Your task to perform on an android device: turn vacation reply on in the gmail app Image 0: 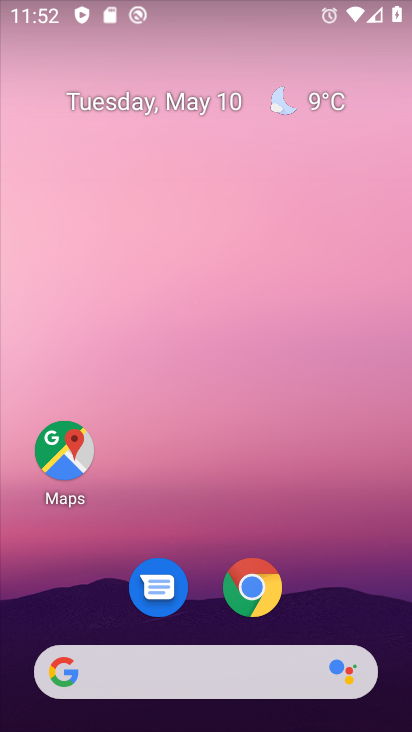
Step 0: drag from (356, 632) to (330, 14)
Your task to perform on an android device: turn vacation reply on in the gmail app Image 1: 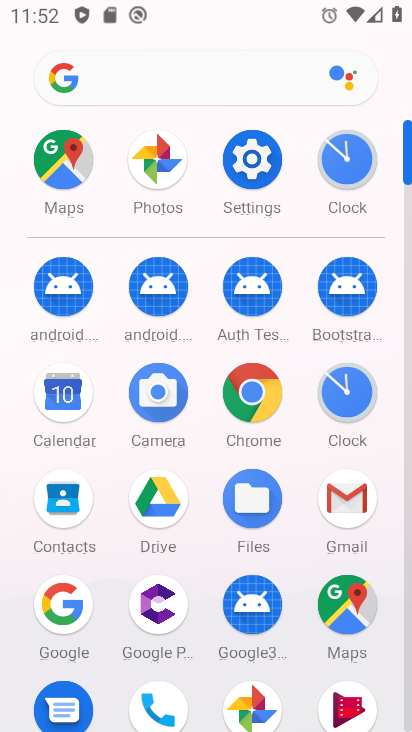
Step 1: click (346, 499)
Your task to perform on an android device: turn vacation reply on in the gmail app Image 2: 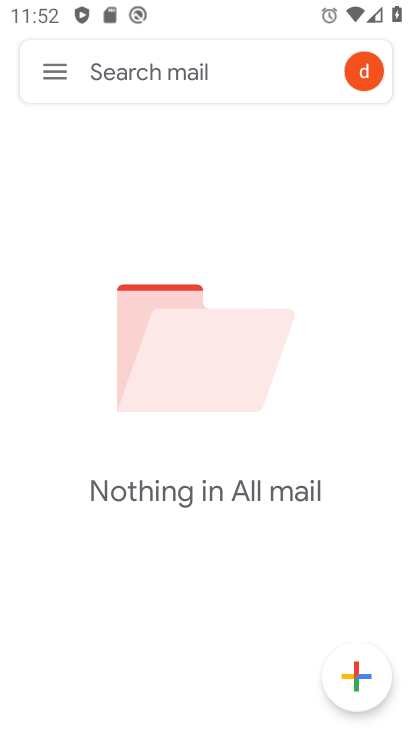
Step 2: click (52, 77)
Your task to perform on an android device: turn vacation reply on in the gmail app Image 3: 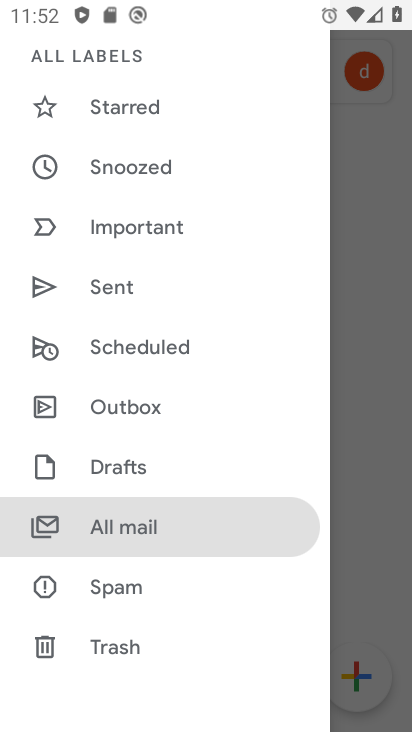
Step 3: drag from (173, 540) to (162, 177)
Your task to perform on an android device: turn vacation reply on in the gmail app Image 4: 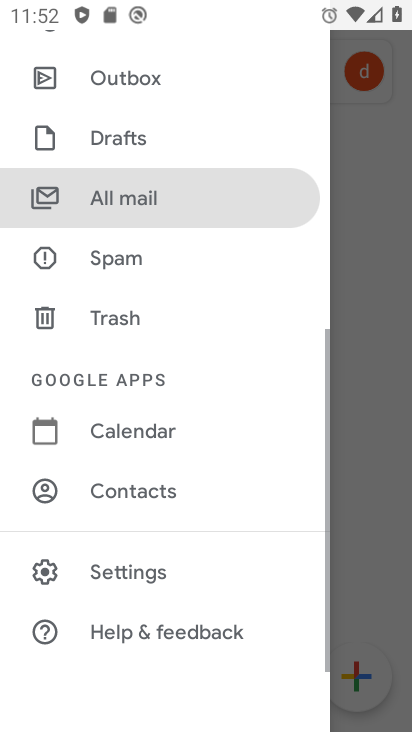
Step 4: click (138, 576)
Your task to perform on an android device: turn vacation reply on in the gmail app Image 5: 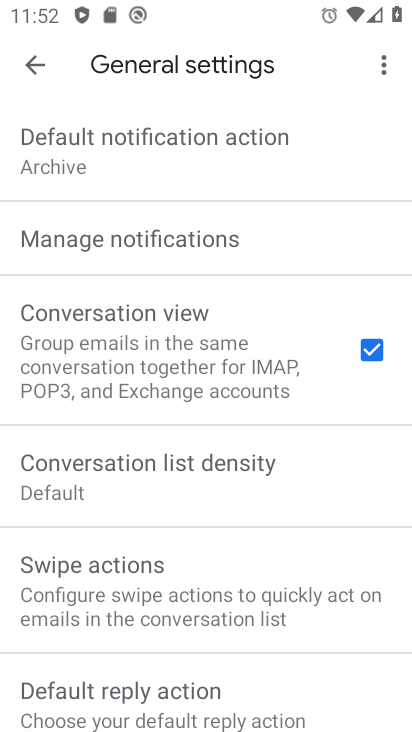
Step 5: click (30, 71)
Your task to perform on an android device: turn vacation reply on in the gmail app Image 6: 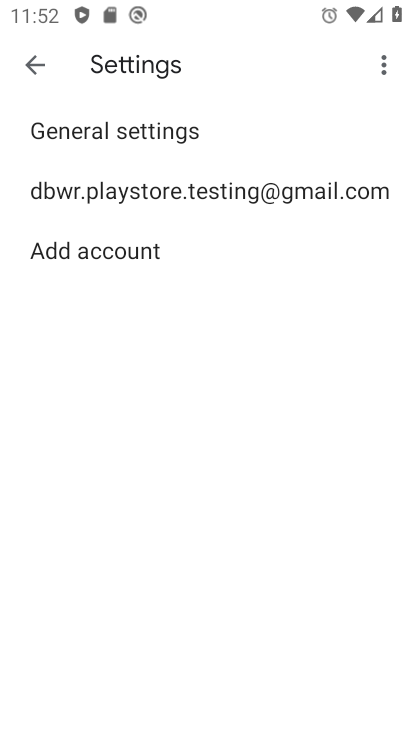
Step 6: click (142, 181)
Your task to perform on an android device: turn vacation reply on in the gmail app Image 7: 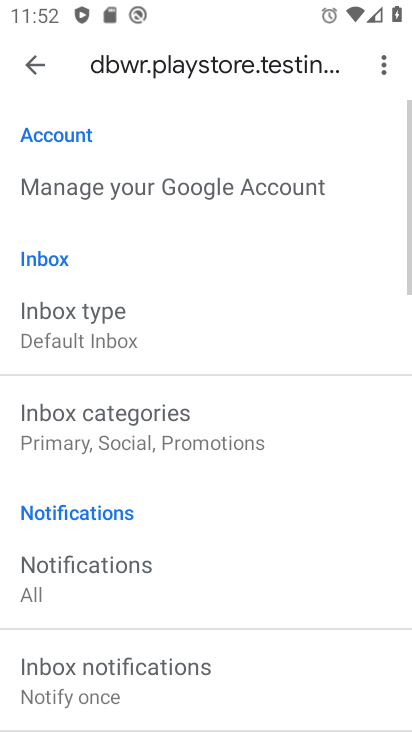
Step 7: drag from (220, 587) to (215, 228)
Your task to perform on an android device: turn vacation reply on in the gmail app Image 8: 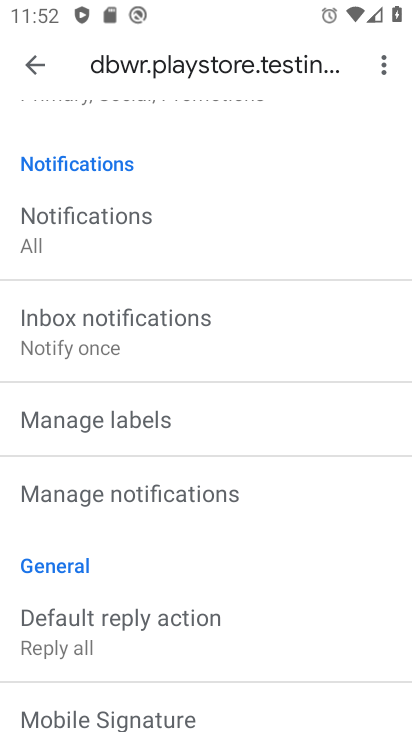
Step 8: drag from (220, 607) to (193, 218)
Your task to perform on an android device: turn vacation reply on in the gmail app Image 9: 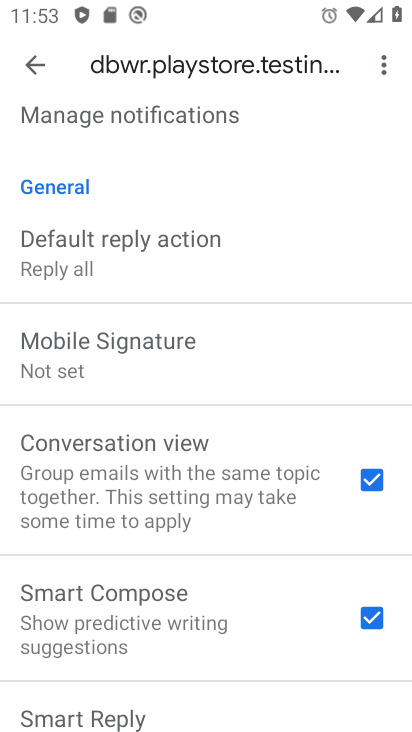
Step 9: drag from (171, 549) to (145, 174)
Your task to perform on an android device: turn vacation reply on in the gmail app Image 10: 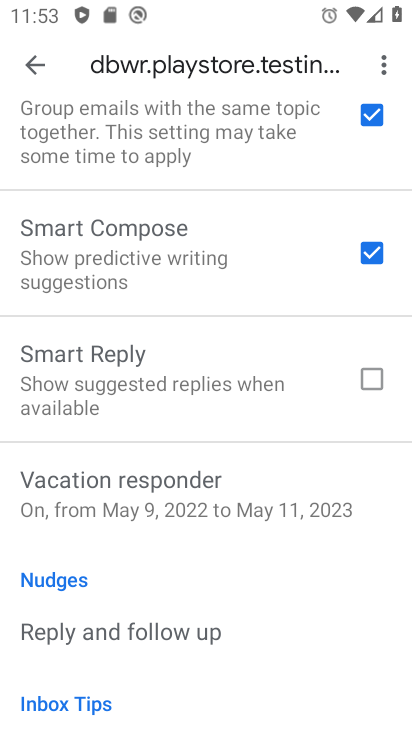
Step 10: click (109, 496)
Your task to perform on an android device: turn vacation reply on in the gmail app Image 11: 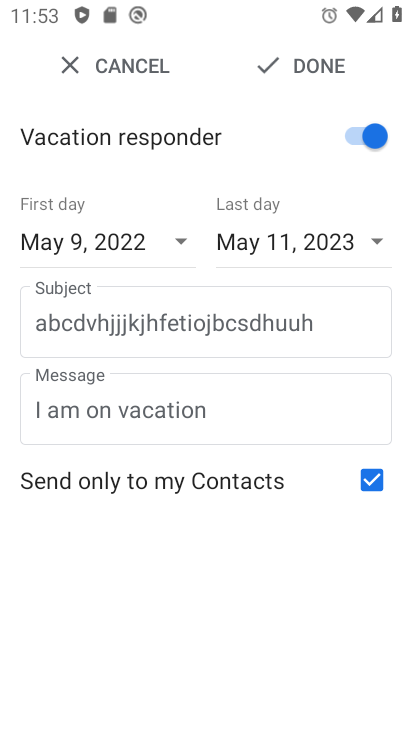
Step 11: click (308, 67)
Your task to perform on an android device: turn vacation reply on in the gmail app Image 12: 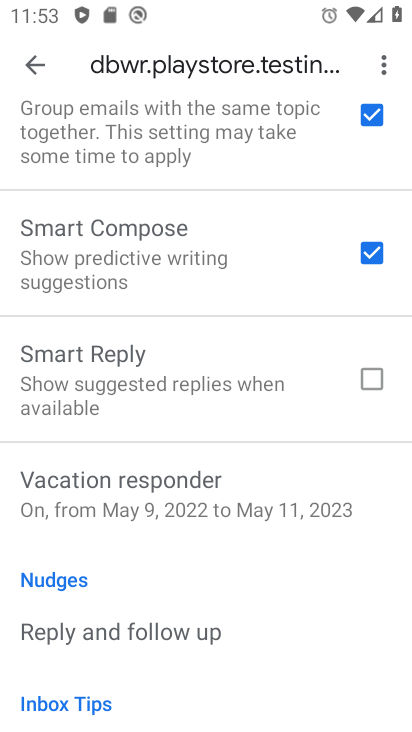
Step 12: task complete